Your task to perform on an android device: What is the recent news? Image 0: 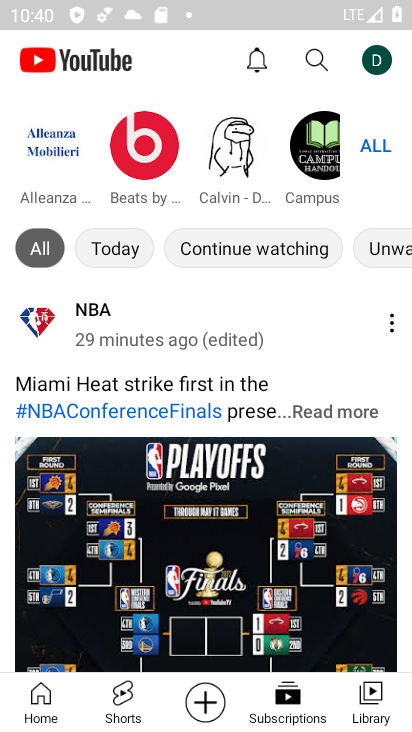
Step 0: press home button
Your task to perform on an android device: What is the recent news? Image 1: 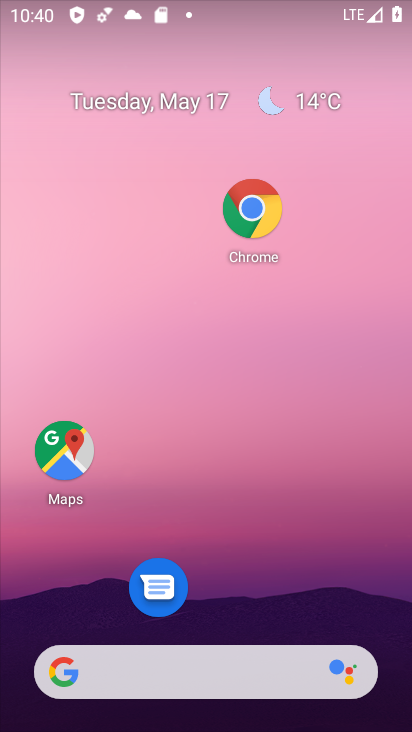
Step 1: click (200, 690)
Your task to perform on an android device: What is the recent news? Image 2: 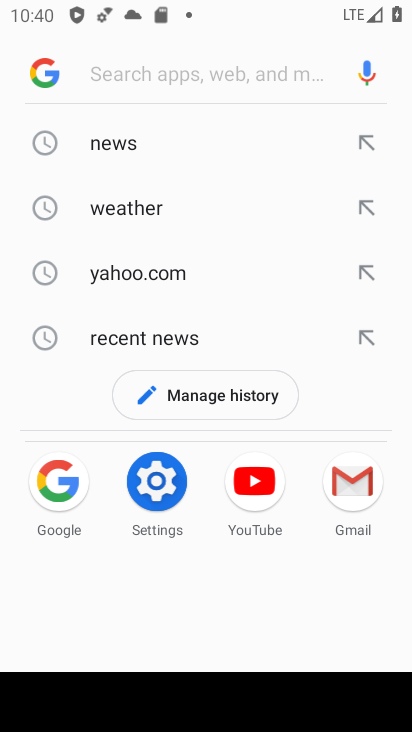
Step 2: click (193, 334)
Your task to perform on an android device: What is the recent news? Image 3: 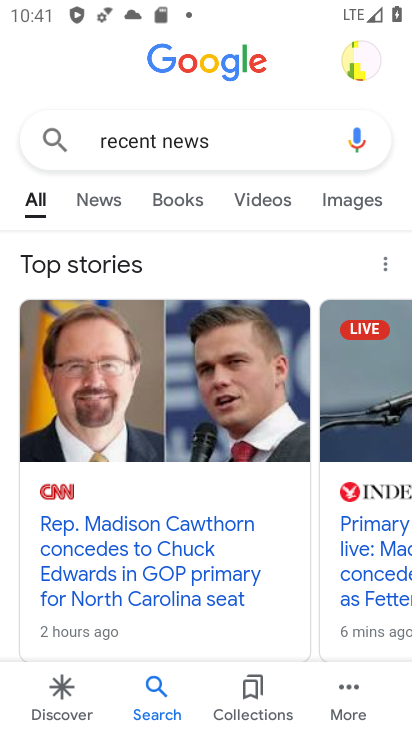
Step 3: click (103, 197)
Your task to perform on an android device: What is the recent news? Image 4: 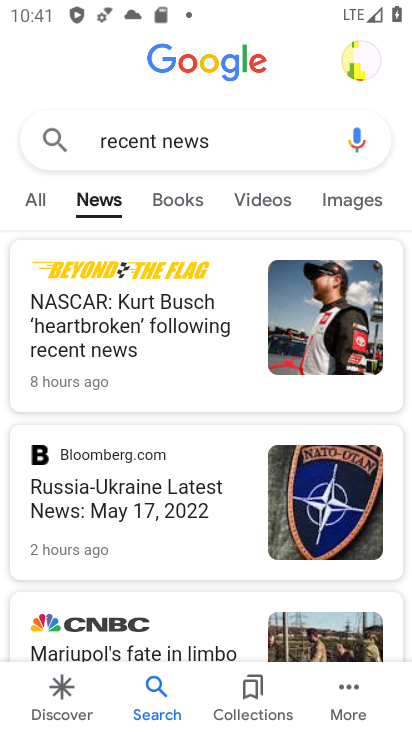
Step 4: task complete